Your task to perform on an android device: Open notification settings Image 0: 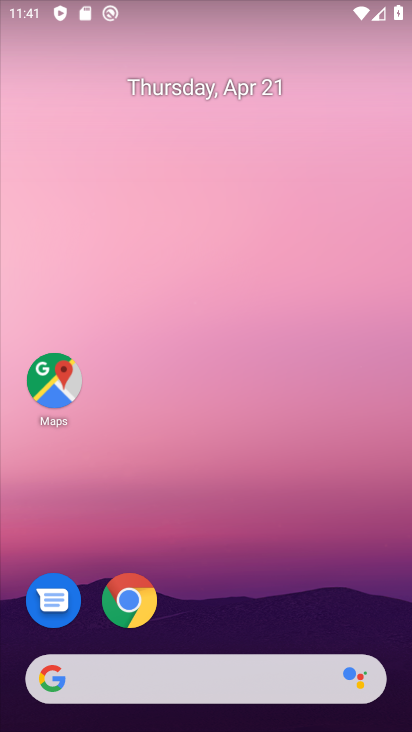
Step 0: drag from (210, 635) to (391, 37)
Your task to perform on an android device: Open notification settings Image 1: 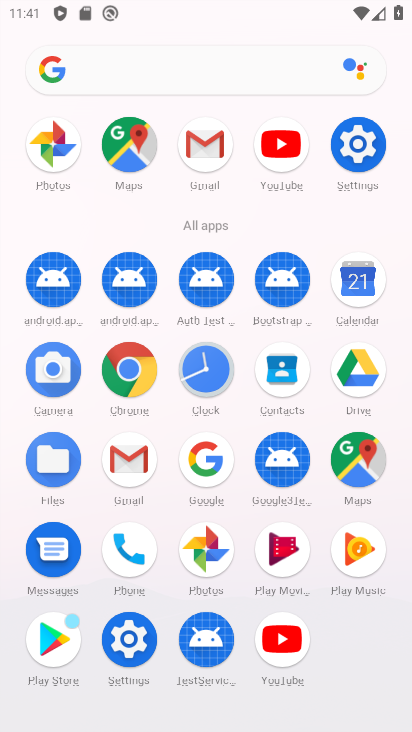
Step 1: click (123, 648)
Your task to perform on an android device: Open notification settings Image 2: 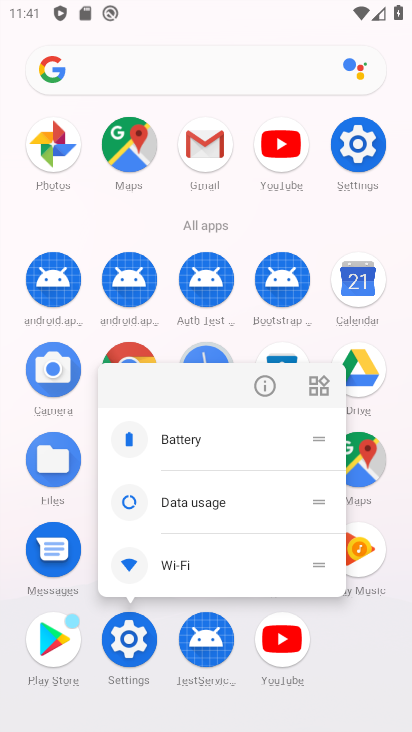
Step 2: click (126, 645)
Your task to perform on an android device: Open notification settings Image 3: 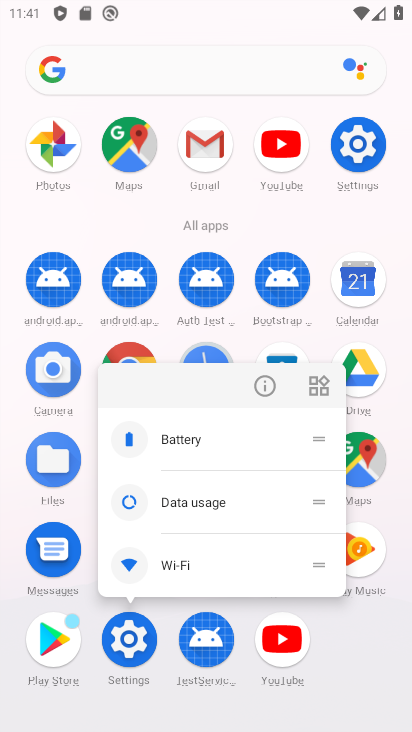
Step 3: click (142, 629)
Your task to perform on an android device: Open notification settings Image 4: 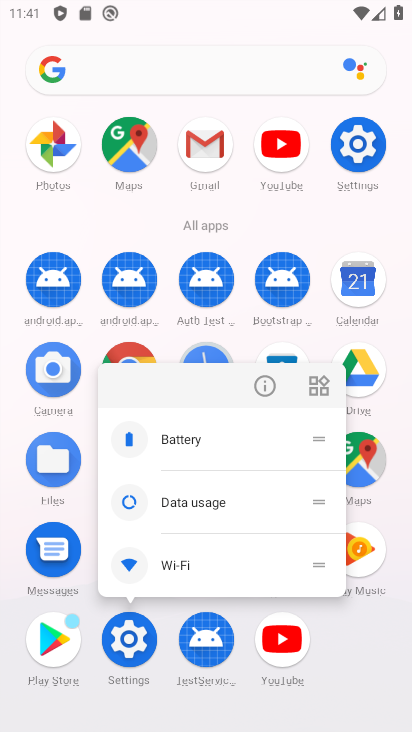
Step 4: click (129, 642)
Your task to perform on an android device: Open notification settings Image 5: 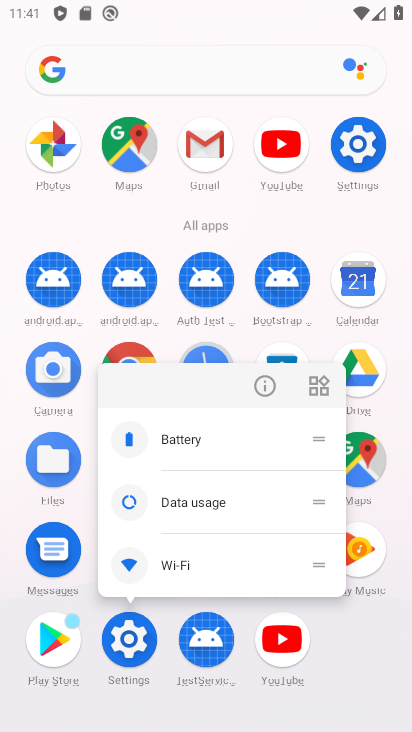
Step 5: click (115, 642)
Your task to perform on an android device: Open notification settings Image 6: 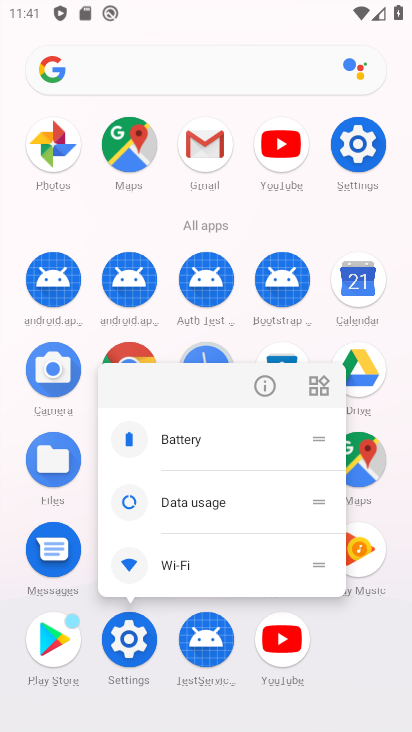
Step 6: click (133, 648)
Your task to perform on an android device: Open notification settings Image 7: 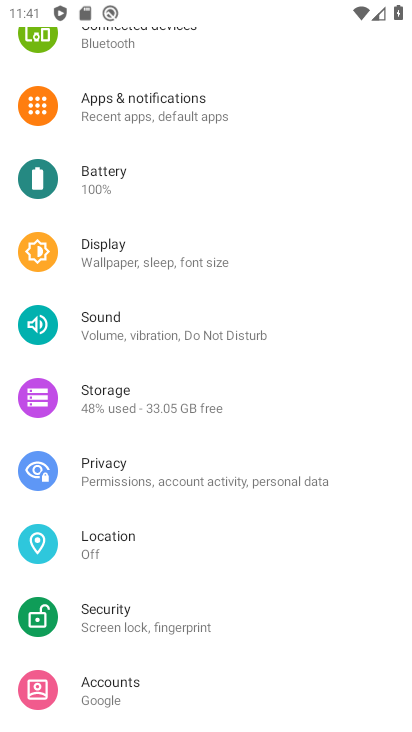
Step 7: click (210, 116)
Your task to perform on an android device: Open notification settings Image 8: 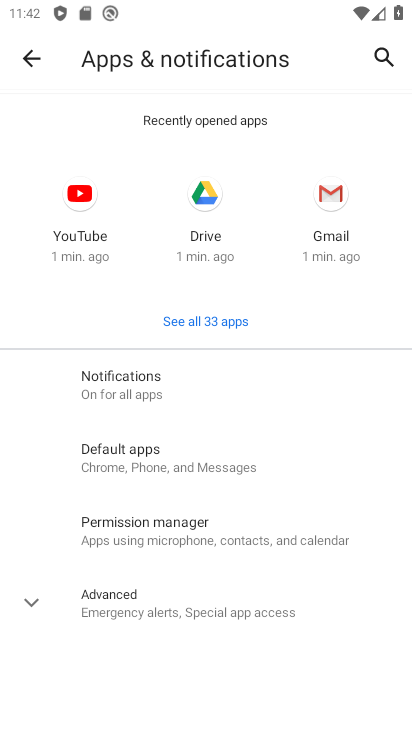
Step 8: task complete